Your task to perform on an android device: turn on the 12-hour format for clock Image 0: 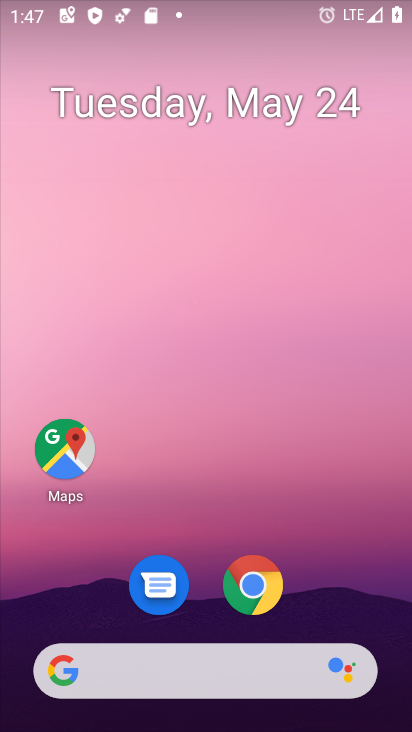
Step 0: drag from (245, 446) to (259, 10)
Your task to perform on an android device: turn on the 12-hour format for clock Image 1: 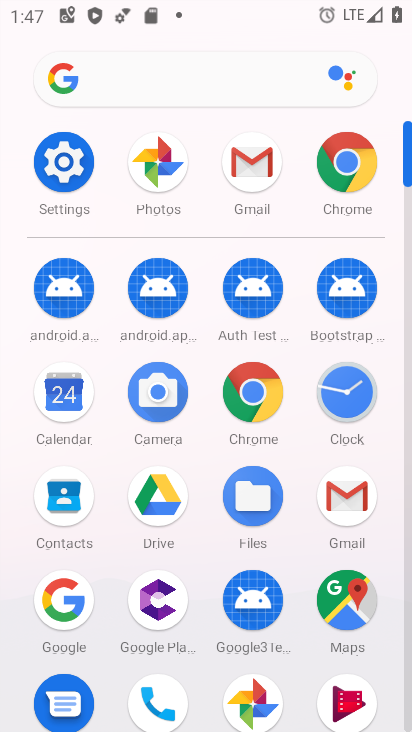
Step 1: click (338, 390)
Your task to perform on an android device: turn on the 12-hour format for clock Image 2: 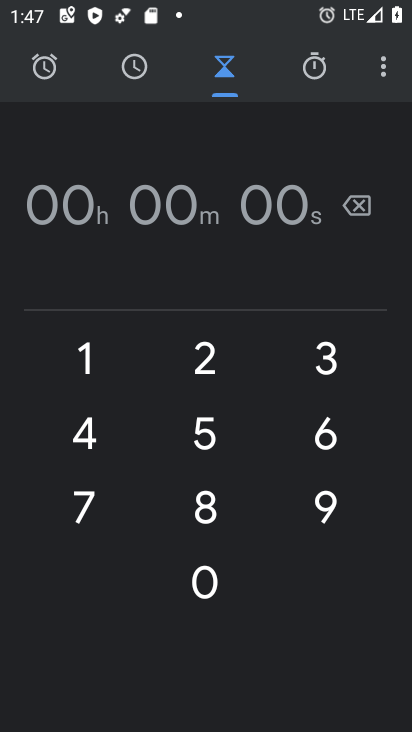
Step 2: click (380, 72)
Your task to perform on an android device: turn on the 12-hour format for clock Image 3: 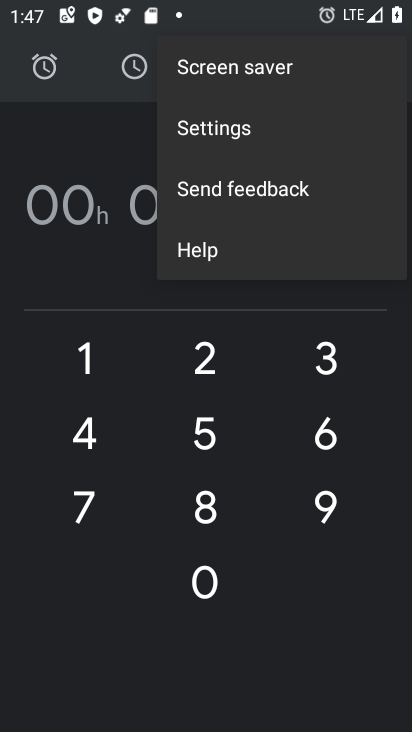
Step 3: click (311, 123)
Your task to perform on an android device: turn on the 12-hour format for clock Image 4: 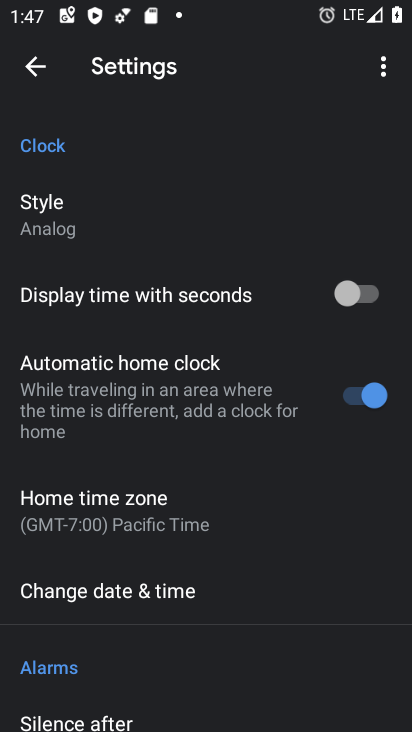
Step 4: click (254, 598)
Your task to perform on an android device: turn on the 12-hour format for clock Image 5: 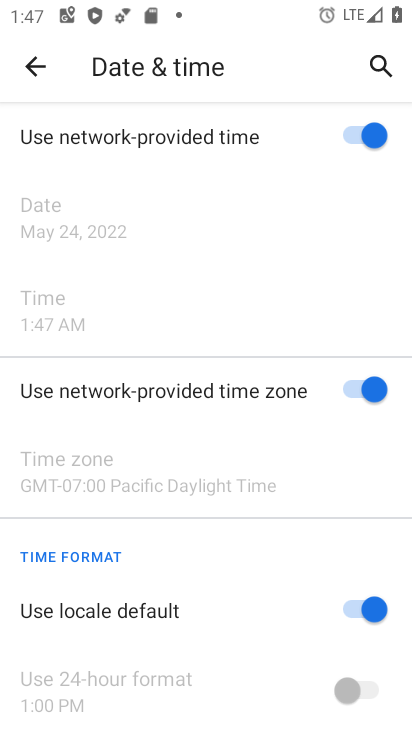
Step 5: task complete